Your task to perform on an android device: Open battery settings Image 0: 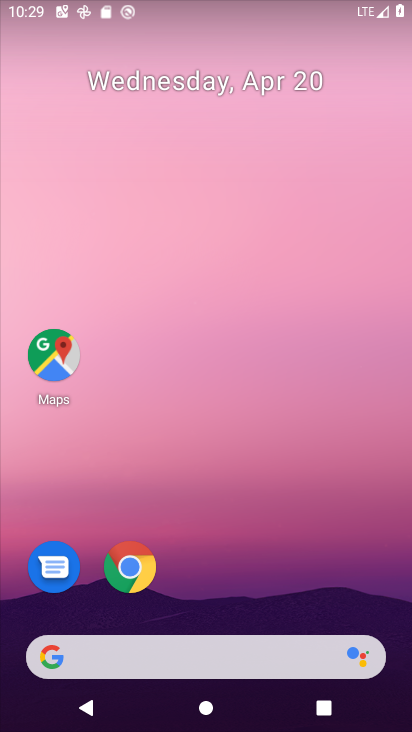
Step 0: drag from (341, 569) to (346, 190)
Your task to perform on an android device: Open battery settings Image 1: 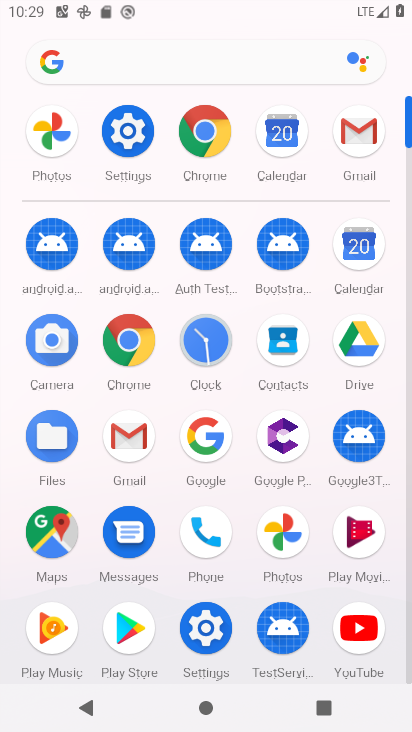
Step 1: click (201, 634)
Your task to perform on an android device: Open battery settings Image 2: 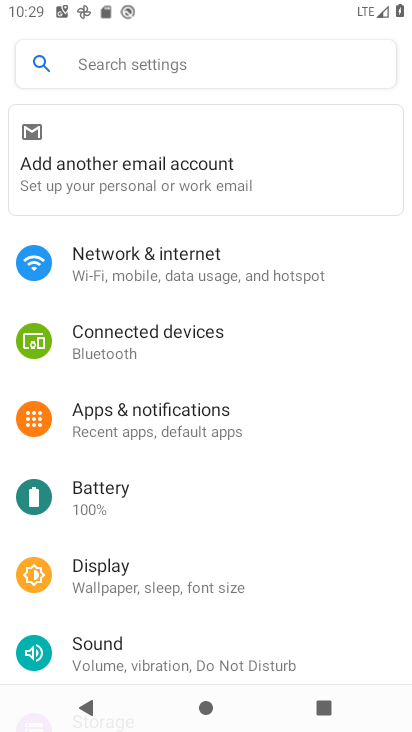
Step 2: drag from (365, 595) to (370, 422)
Your task to perform on an android device: Open battery settings Image 3: 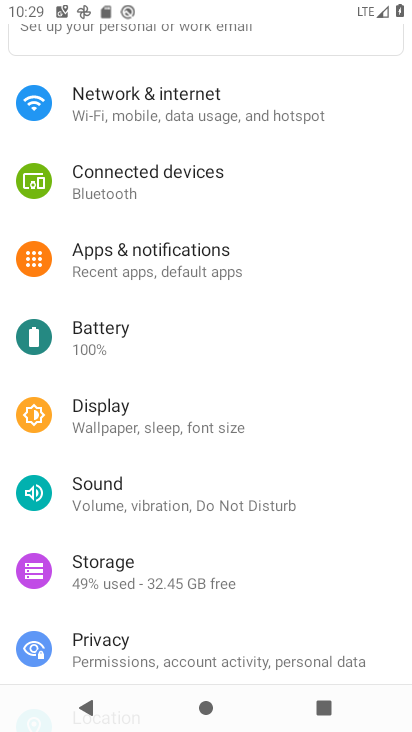
Step 3: drag from (381, 590) to (359, 406)
Your task to perform on an android device: Open battery settings Image 4: 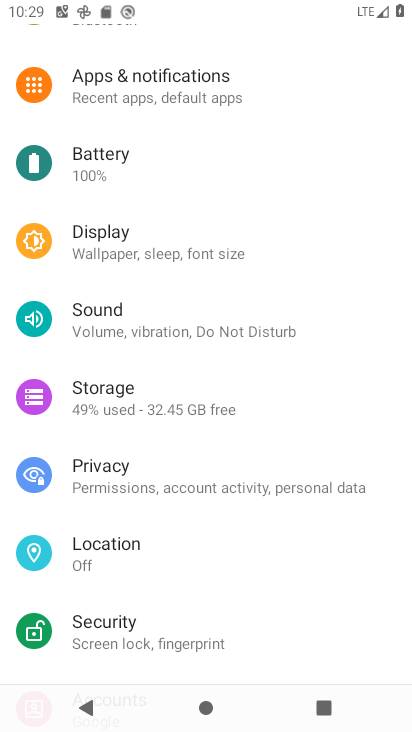
Step 4: drag from (326, 592) to (327, 396)
Your task to perform on an android device: Open battery settings Image 5: 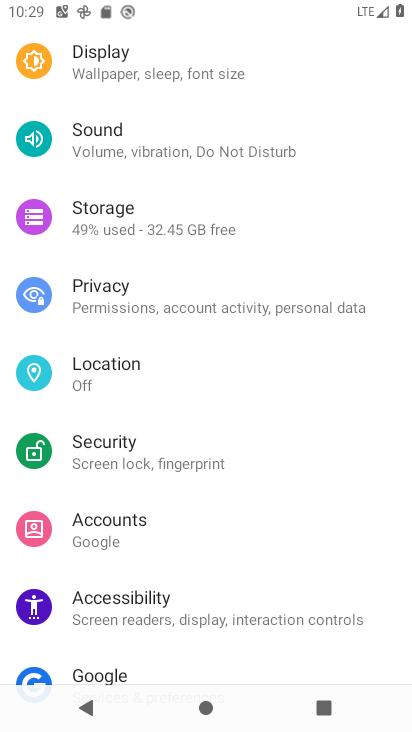
Step 5: drag from (331, 552) to (344, 417)
Your task to perform on an android device: Open battery settings Image 6: 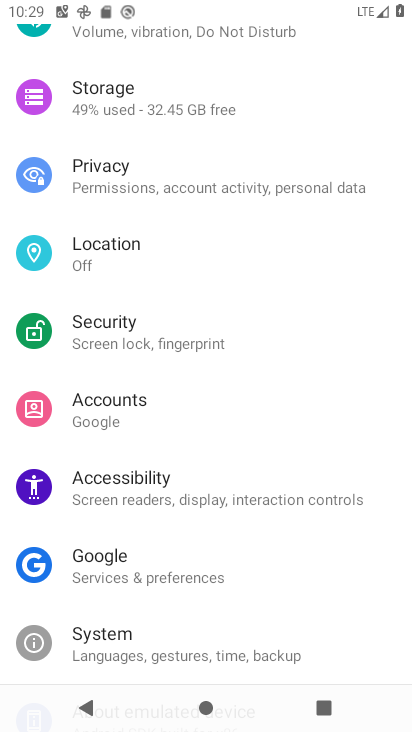
Step 6: drag from (353, 588) to (364, 394)
Your task to perform on an android device: Open battery settings Image 7: 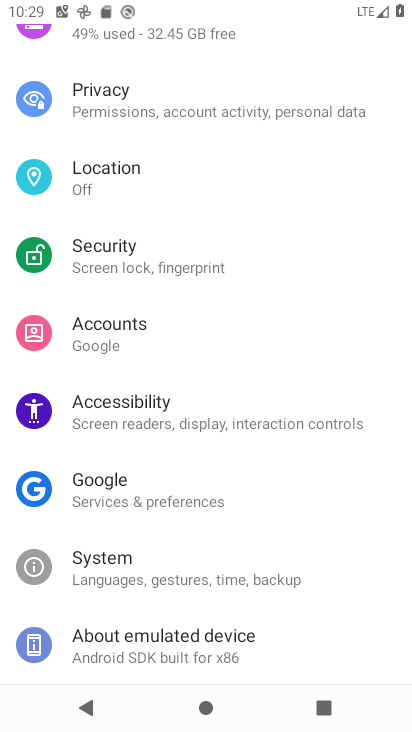
Step 7: drag from (350, 599) to (349, 324)
Your task to perform on an android device: Open battery settings Image 8: 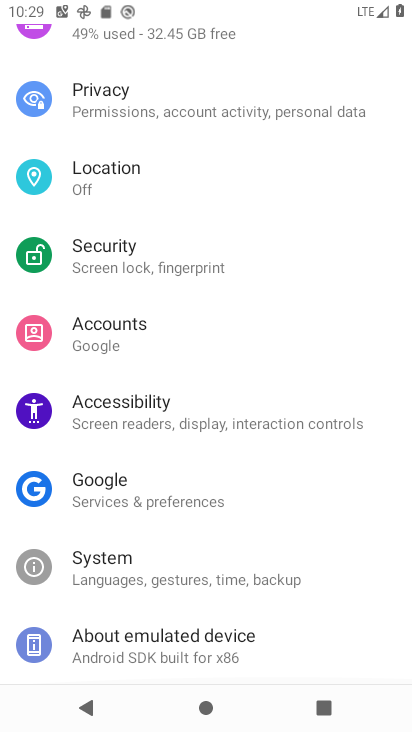
Step 8: drag from (370, 286) to (380, 478)
Your task to perform on an android device: Open battery settings Image 9: 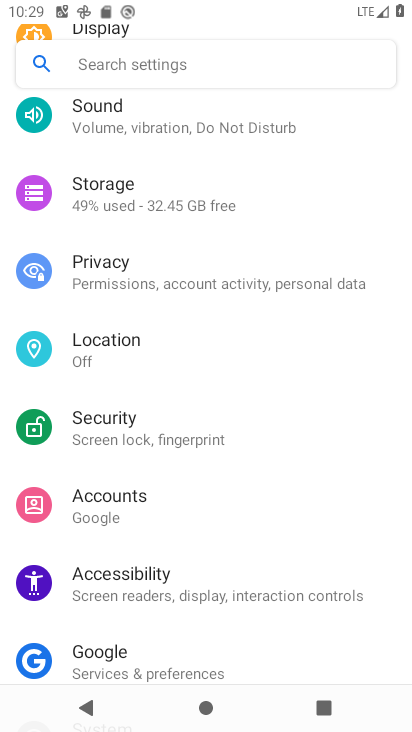
Step 9: drag from (375, 308) to (370, 472)
Your task to perform on an android device: Open battery settings Image 10: 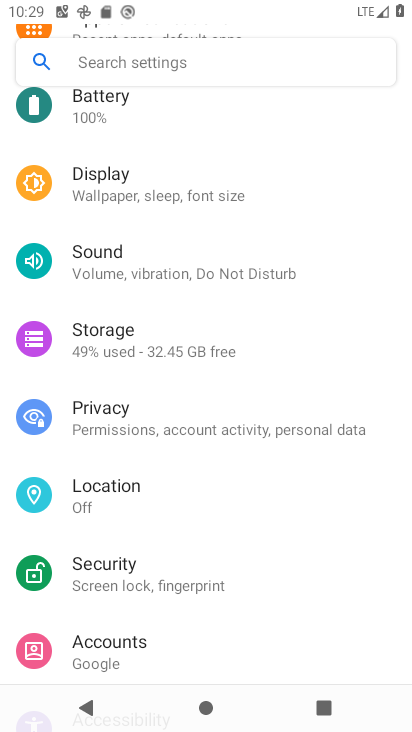
Step 10: drag from (368, 285) to (361, 491)
Your task to perform on an android device: Open battery settings Image 11: 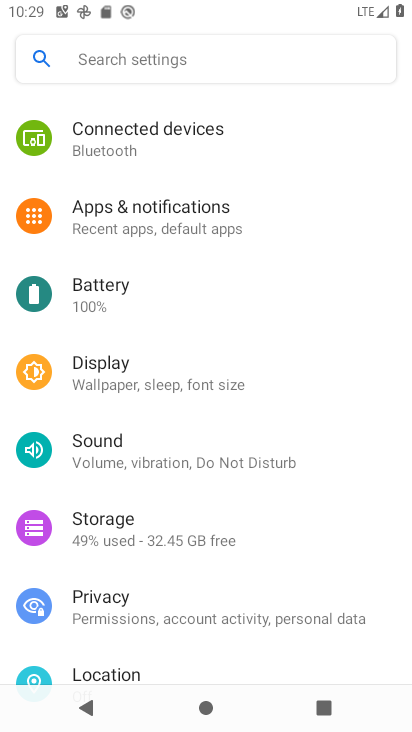
Step 11: drag from (358, 309) to (359, 455)
Your task to perform on an android device: Open battery settings Image 12: 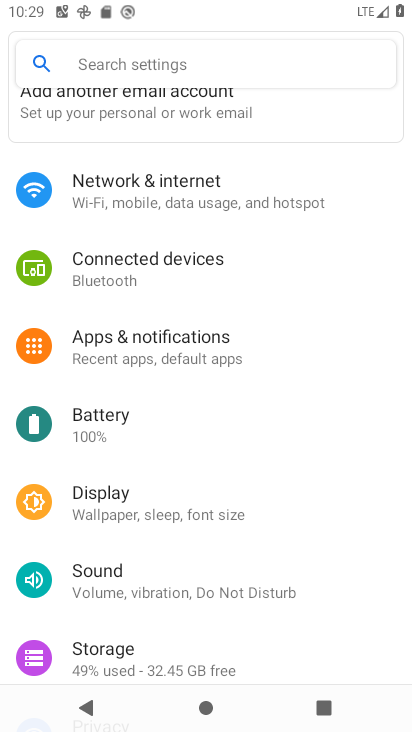
Step 12: click (138, 420)
Your task to perform on an android device: Open battery settings Image 13: 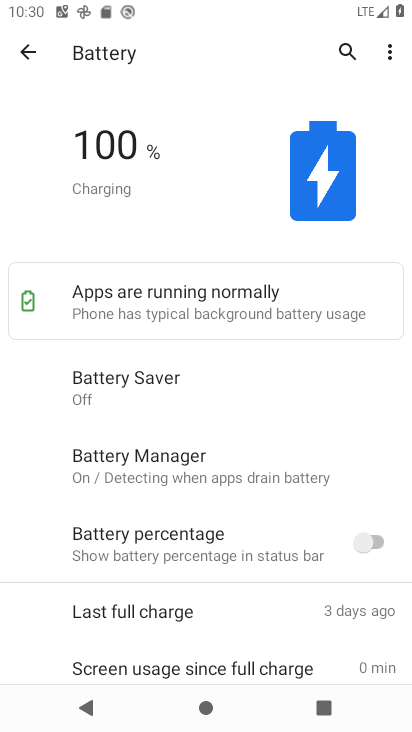
Step 13: task complete